Your task to perform on an android device: Open Chrome and go to settings Image 0: 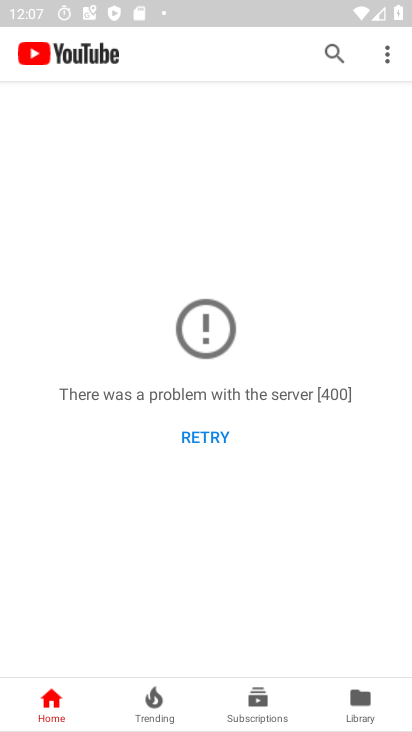
Step 0: press back button
Your task to perform on an android device: Open Chrome and go to settings Image 1: 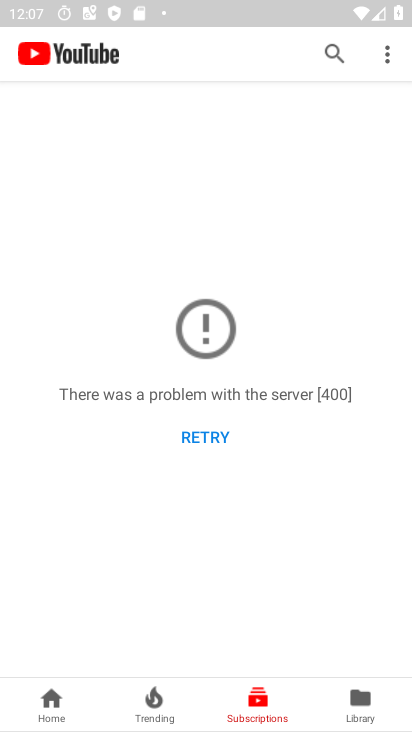
Step 1: drag from (335, 571) to (282, 172)
Your task to perform on an android device: Open Chrome and go to settings Image 2: 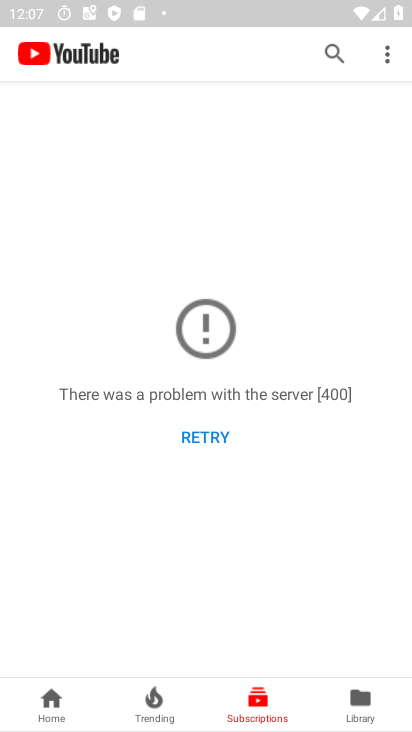
Step 2: press home button
Your task to perform on an android device: Open Chrome and go to settings Image 3: 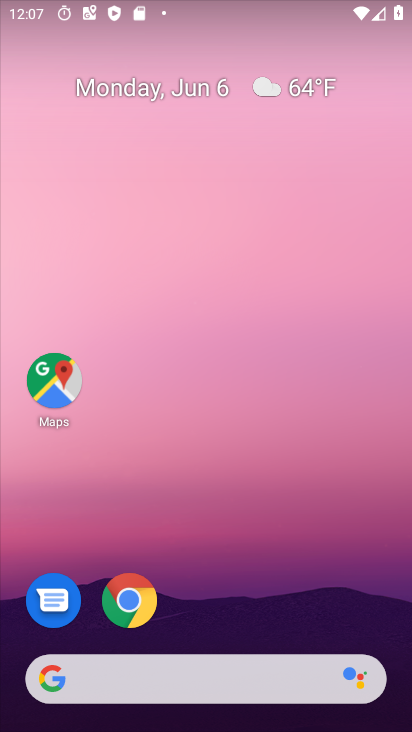
Step 3: drag from (251, 422) to (140, 45)
Your task to perform on an android device: Open Chrome and go to settings Image 4: 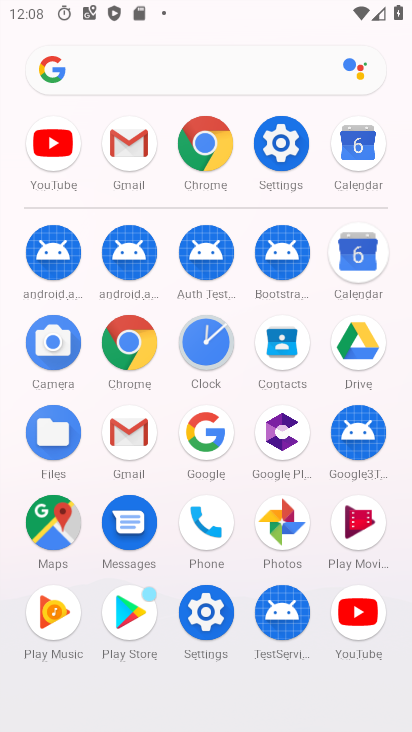
Step 4: click (215, 152)
Your task to perform on an android device: Open Chrome and go to settings Image 5: 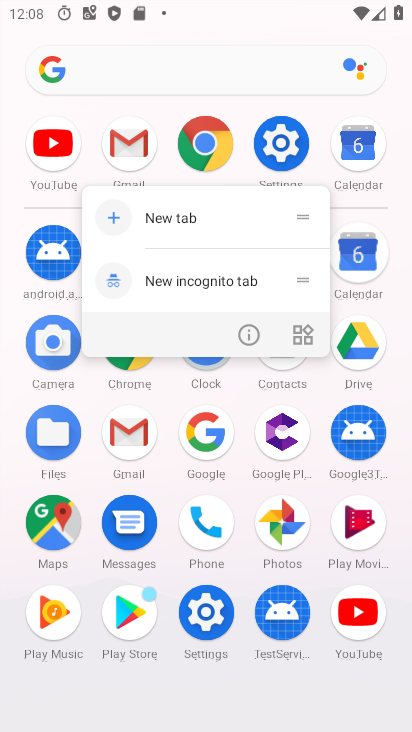
Step 5: click (171, 210)
Your task to perform on an android device: Open Chrome and go to settings Image 6: 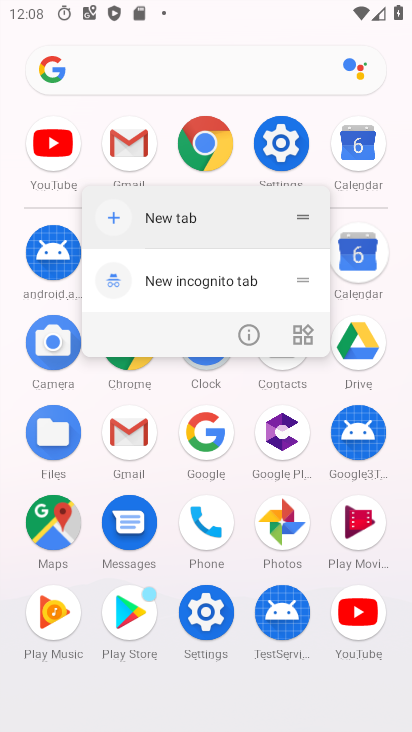
Step 6: click (171, 210)
Your task to perform on an android device: Open Chrome and go to settings Image 7: 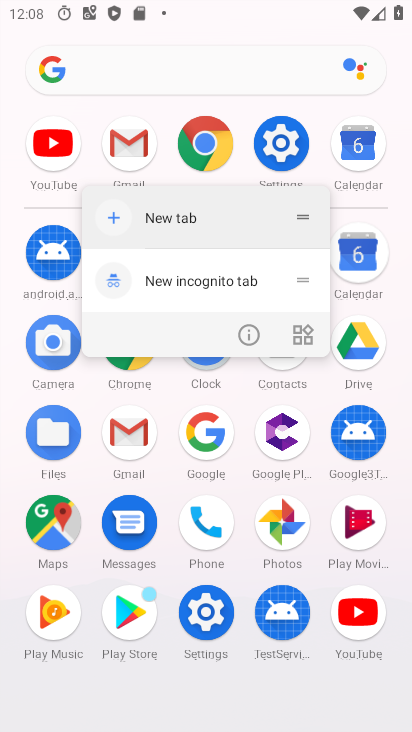
Step 7: click (171, 210)
Your task to perform on an android device: Open Chrome and go to settings Image 8: 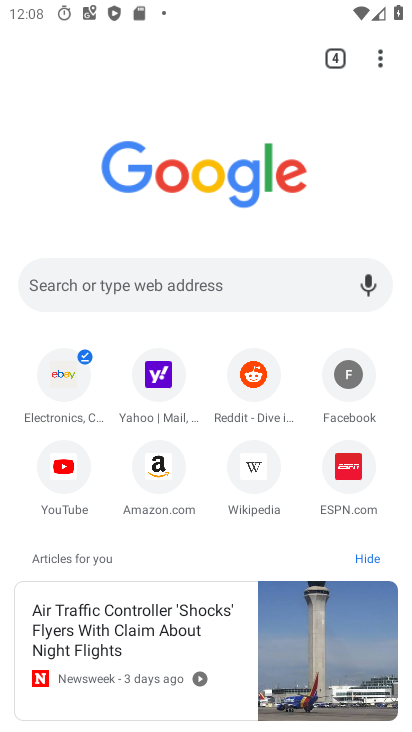
Step 8: drag from (381, 48) to (145, 506)
Your task to perform on an android device: Open Chrome and go to settings Image 9: 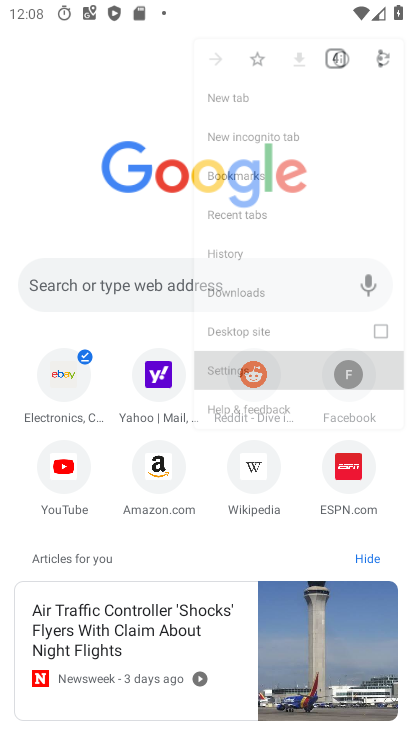
Step 9: click (150, 501)
Your task to perform on an android device: Open Chrome and go to settings Image 10: 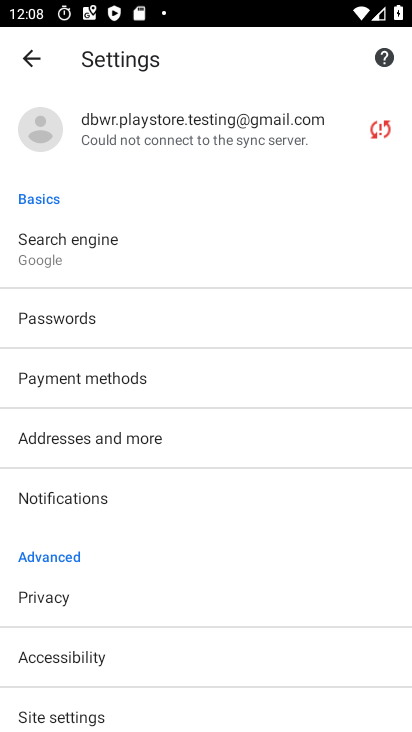
Step 10: drag from (113, 533) to (162, 231)
Your task to perform on an android device: Open Chrome and go to settings Image 11: 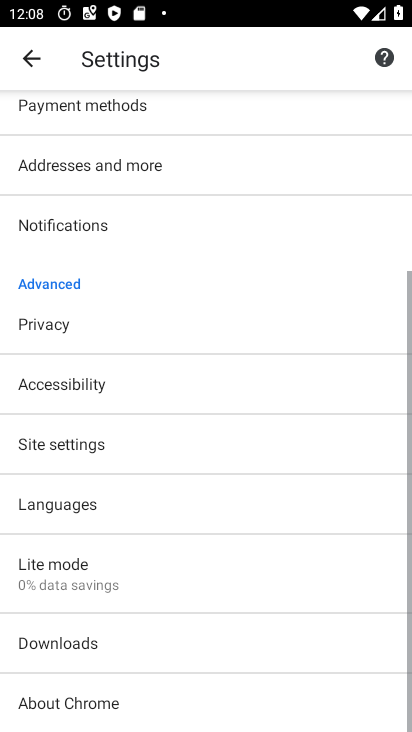
Step 11: drag from (162, 542) to (183, 248)
Your task to perform on an android device: Open Chrome and go to settings Image 12: 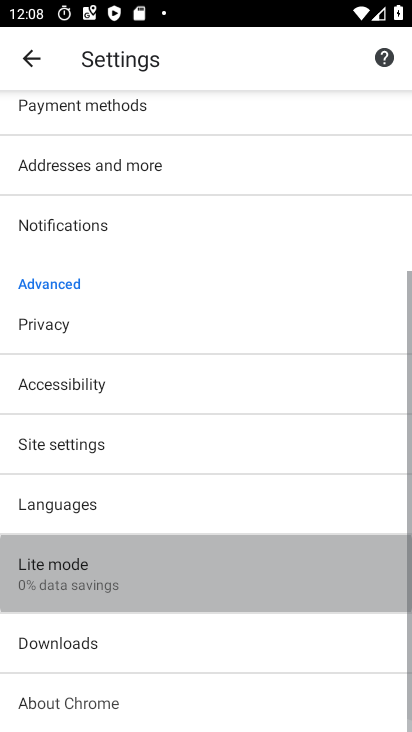
Step 12: drag from (137, 492) to (141, 356)
Your task to perform on an android device: Open Chrome and go to settings Image 13: 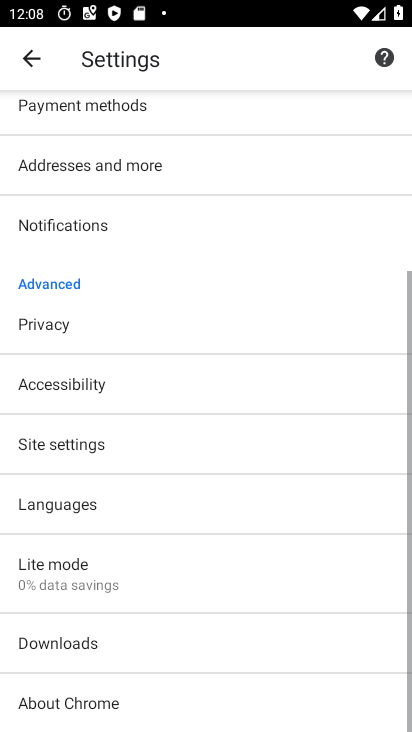
Step 13: click (46, 431)
Your task to perform on an android device: Open Chrome and go to settings Image 14: 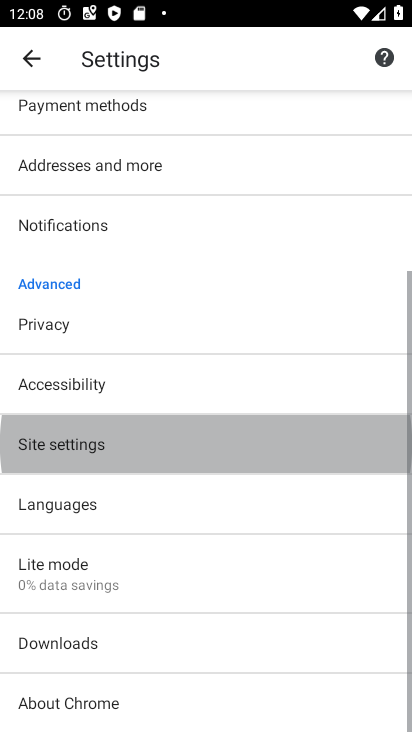
Step 14: click (46, 431)
Your task to perform on an android device: Open Chrome and go to settings Image 15: 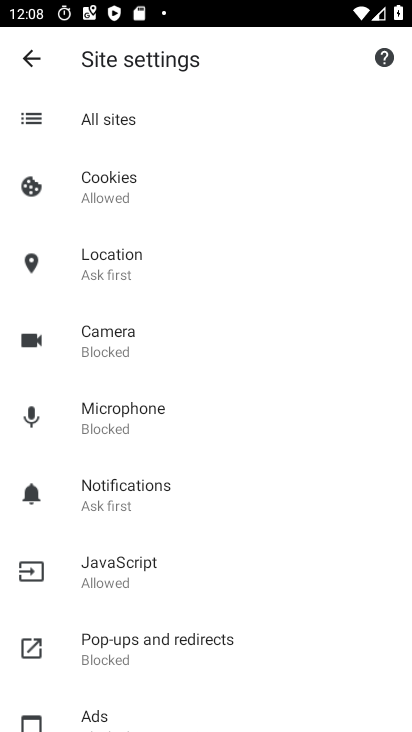
Step 15: task complete